Your task to perform on an android device: Show me popular games on the Play Store Image 0: 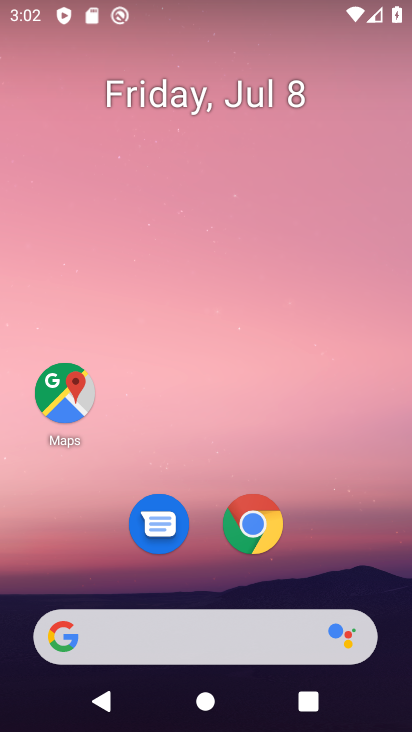
Step 0: drag from (205, 455) to (225, 16)
Your task to perform on an android device: Show me popular games on the Play Store Image 1: 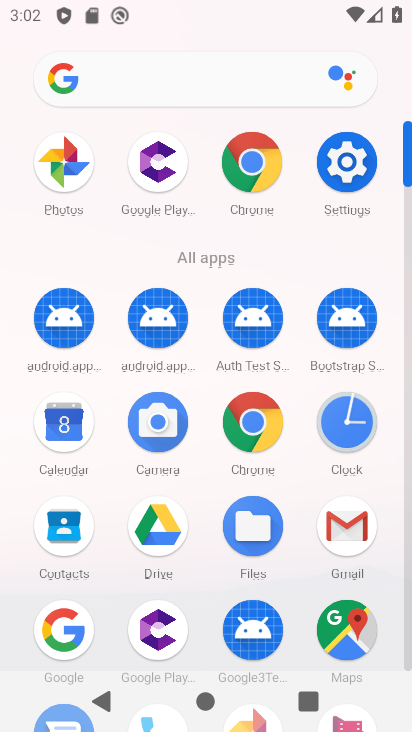
Step 1: drag from (215, 477) to (214, 98)
Your task to perform on an android device: Show me popular games on the Play Store Image 2: 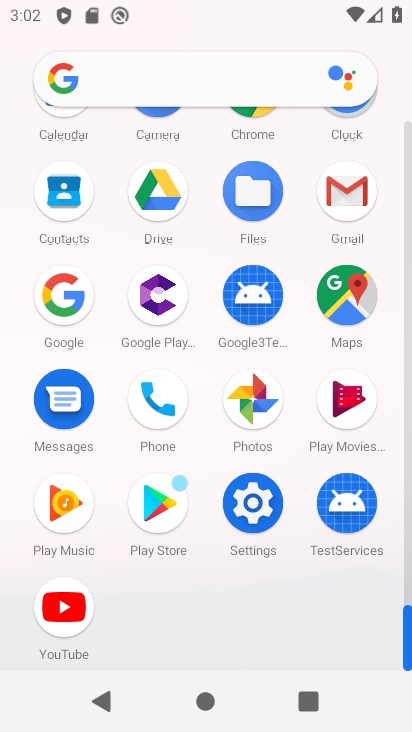
Step 2: click (165, 508)
Your task to perform on an android device: Show me popular games on the Play Store Image 3: 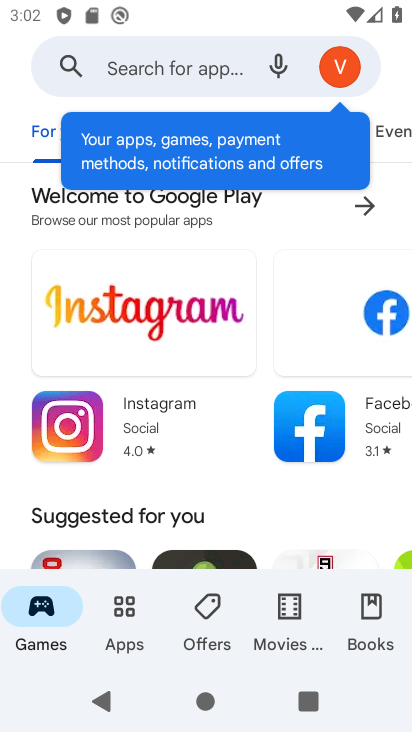
Step 3: click (300, 159)
Your task to perform on an android device: Show me popular games on the Play Store Image 4: 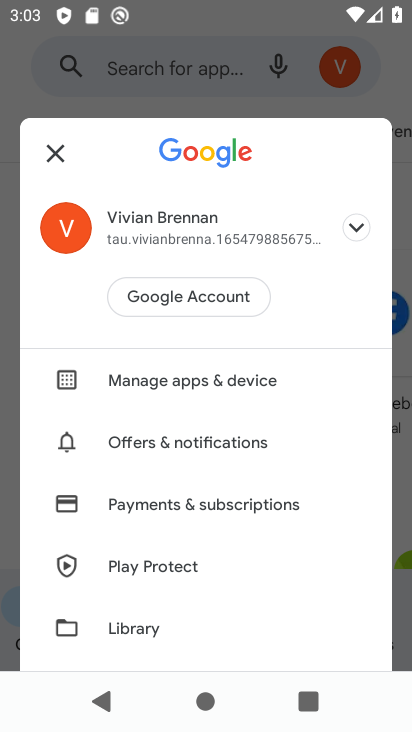
Step 4: click (52, 151)
Your task to perform on an android device: Show me popular games on the Play Store Image 5: 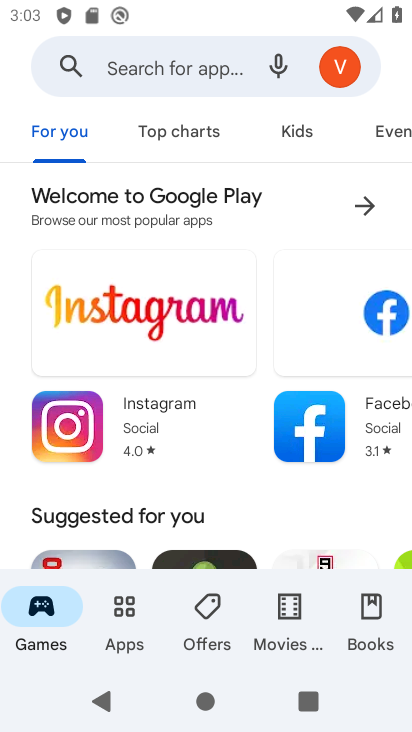
Step 5: drag from (201, 426) to (218, 183)
Your task to perform on an android device: Show me popular games on the Play Store Image 6: 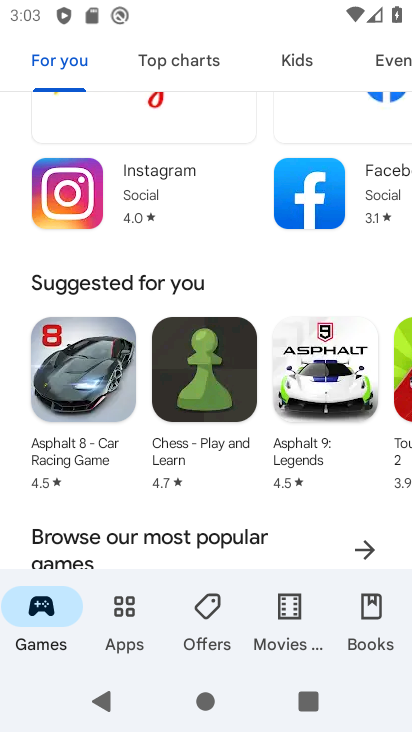
Step 6: drag from (250, 466) to (239, 293)
Your task to perform on an android device: Show me popular games on the Play Store Image 7: 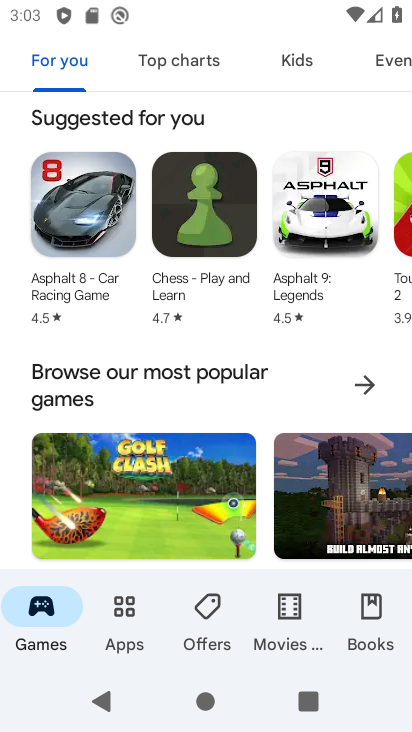
Step 7: click (362, 380)
Your task to perform on an android device: Show me popular games on the Play Store Image 8: 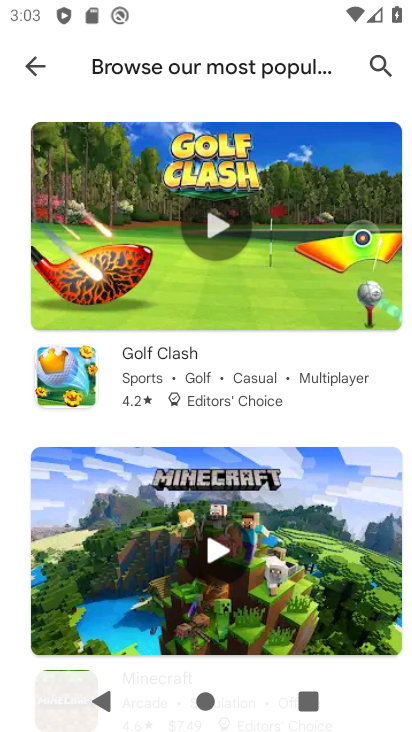
Step 8: task complete